Your task to perform on an android device: turn off notifications in google photos Image 0: 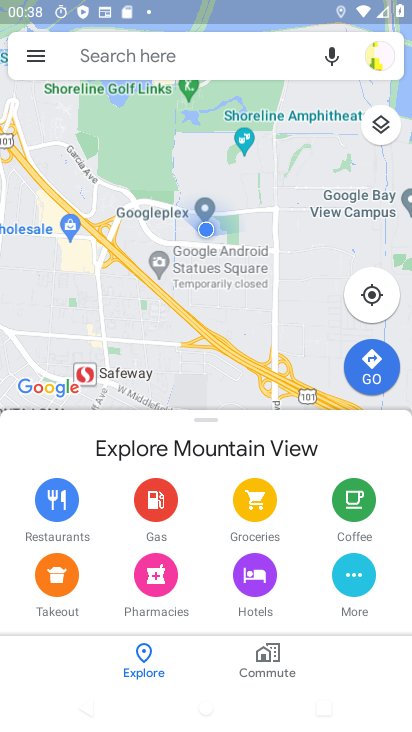
Step 0: press home button
Your task to perform on an android device: turn off notifications in google photos Image 1: 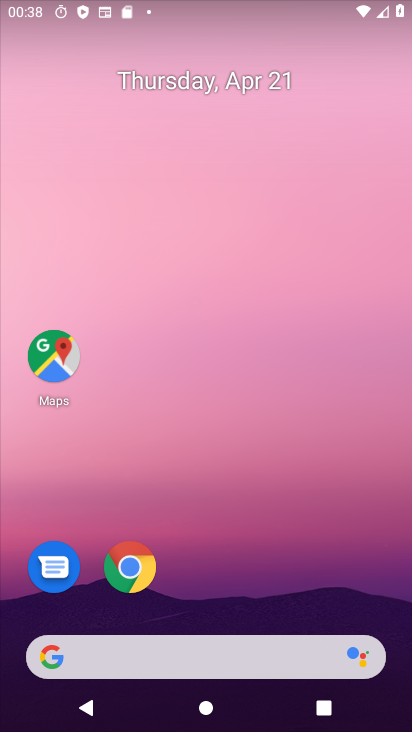
Step 1: drag from (249, 574) to (197, 153)
Your task to perform on an android device: turn off notifications in google photos Image 2: 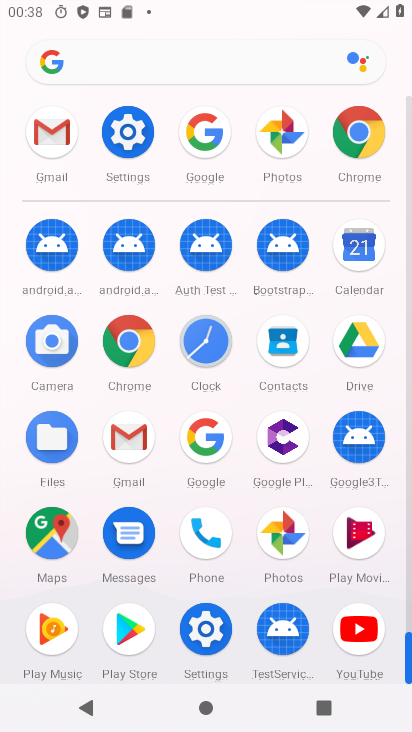
Step 2: click (279, 522)
Your task to perform on an android device: turn off notifications in google photos Image 3: 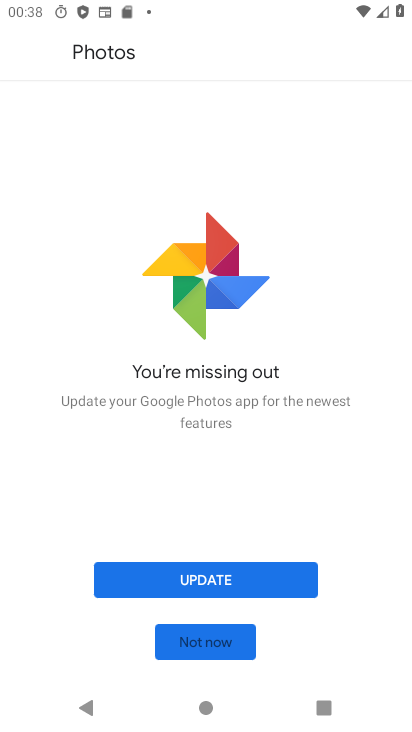
Step 3: click (211, 635)
Your task to perform on an android device: turn off notifications in google photos Image 4: 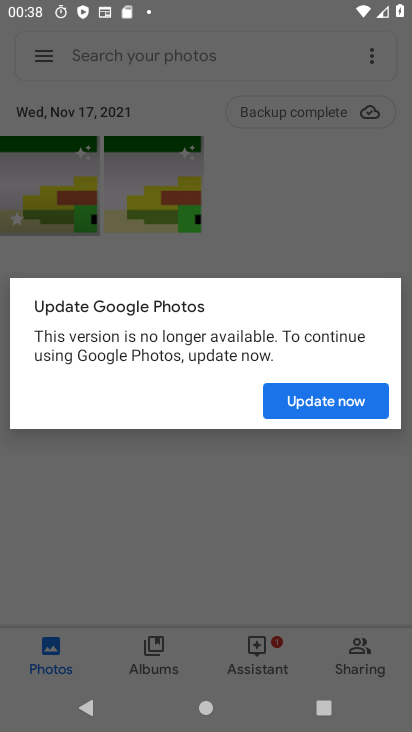
Step 4: click (323, 406)
Your task to perform on an android device: turn off notifications in google photos Image 5: 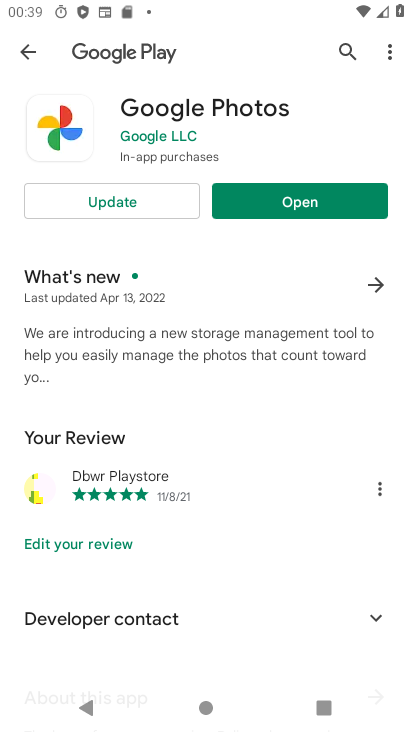
Step 5: press back button
Your task to perform on an android device: turn off notifications in google photos Image 6: 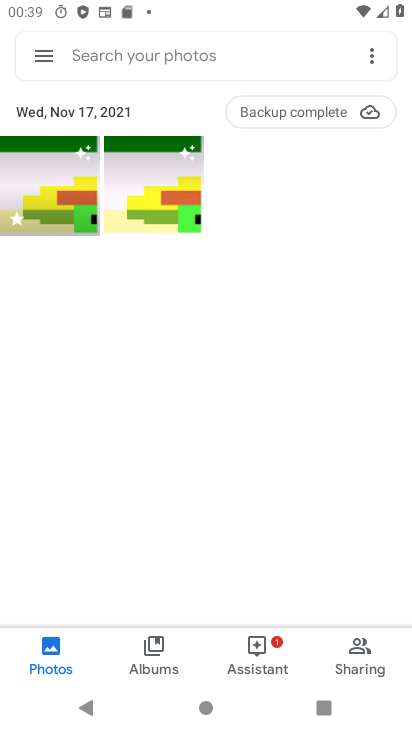
Step 6: click (30, 55)
Your task to perform on an android device: turn off notifications in google photos Image 7: 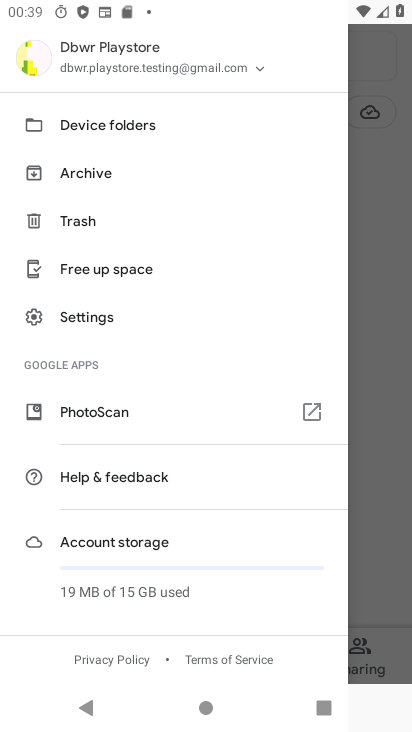
Step 7: drag from (140, 560) to (172, 305)
Your task to perform on an android device: turn off notifications in google photos Image 8: 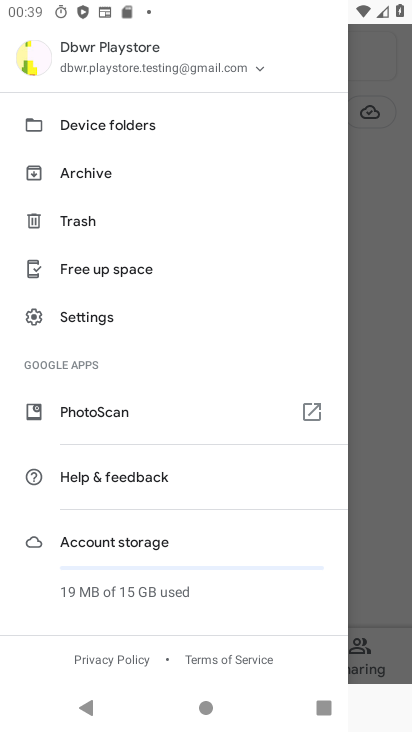
Step 8: click (123, 315)
Your task to perform on an android device: turn off notifications in google photos Image 9: 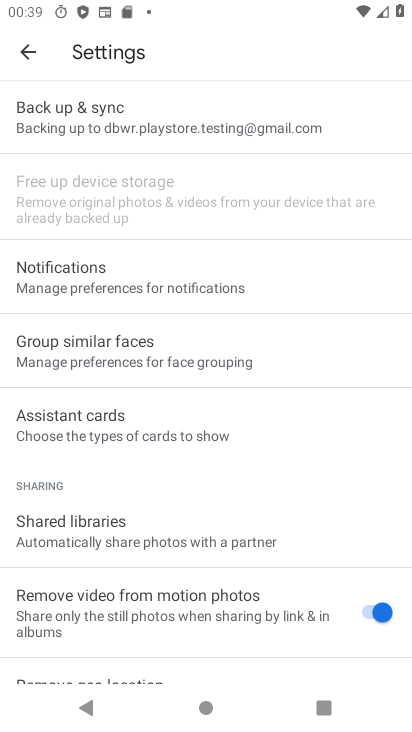
Step 9: click (137, 276)
Your task to perform on an android device: turn off notifications in google photos Image 10: 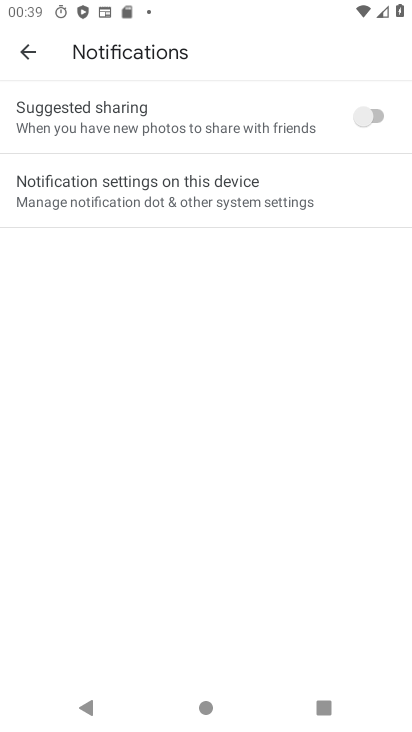
Step 10: click (175, 185)
Your task to perform on an android device: turn off notifications in google photos Image 11: 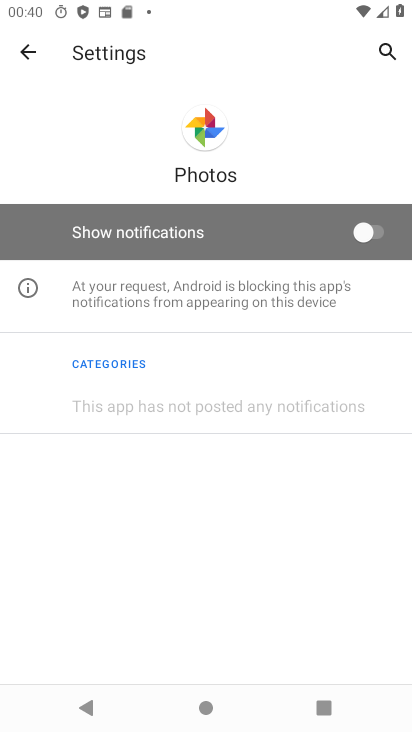
Step 11: task complete